Your task to perform on an android device: Clear the cart on amazon.com. Search for sony triple a on amazon.com, select the first entry, and add it to the cart. Image 0: 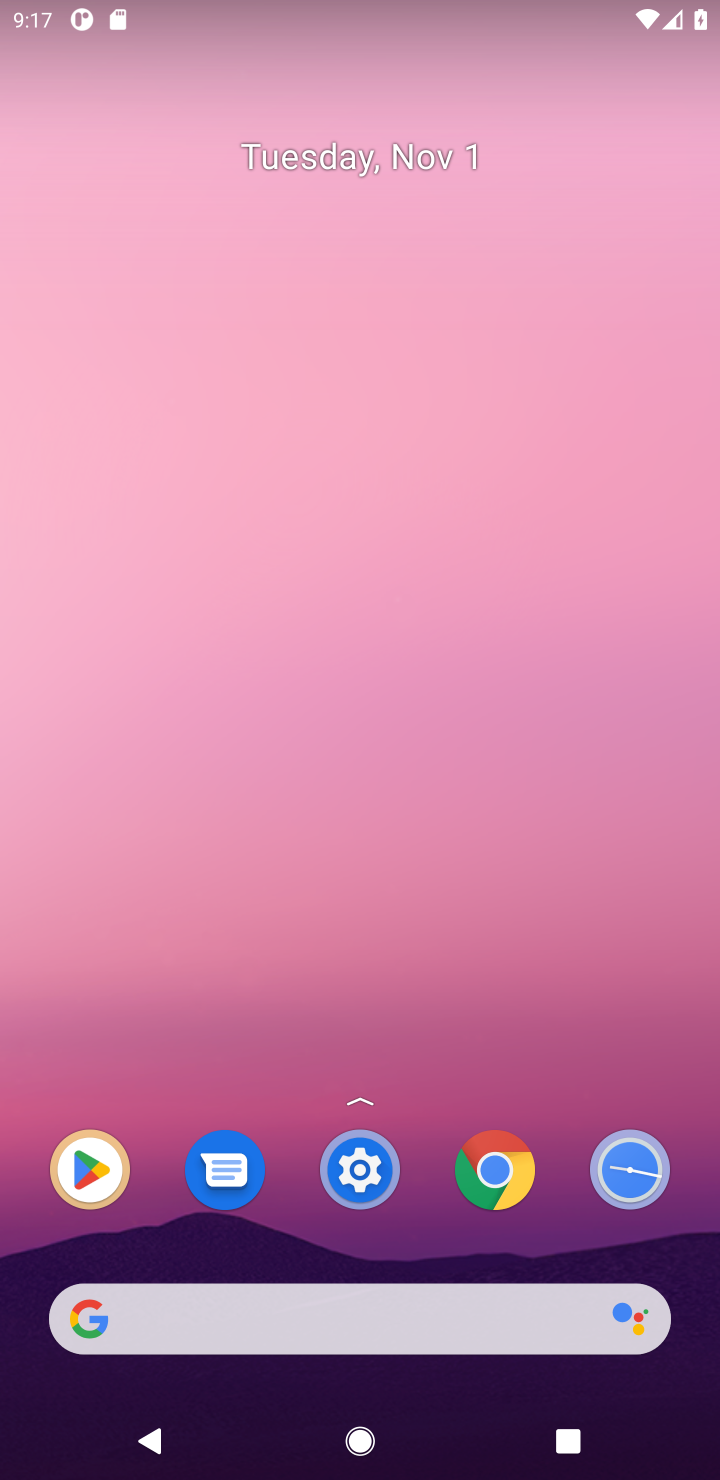
Step 0: click (94, 1320)
Your task to perform on an android device: Clear the cart on amazon.com. Search for sony triple a on amazon.com, select the first entry, and add it to the cart. Image 1: 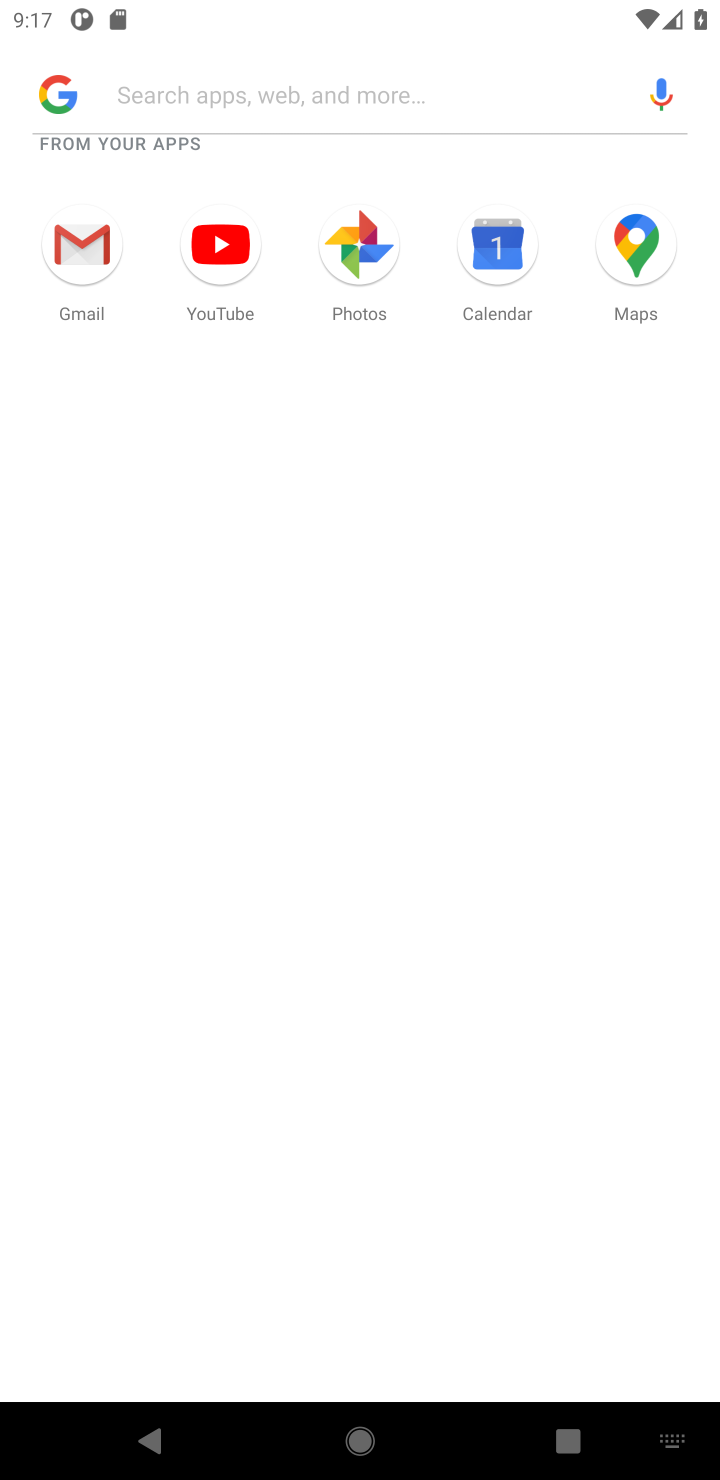
Step 1: type "amazon.com"
Your task to perform on an android device: Clear the cart on amazon.com. Search for sony triple a on amazon.com, select the first entry, and add it to the cart. Image 2: 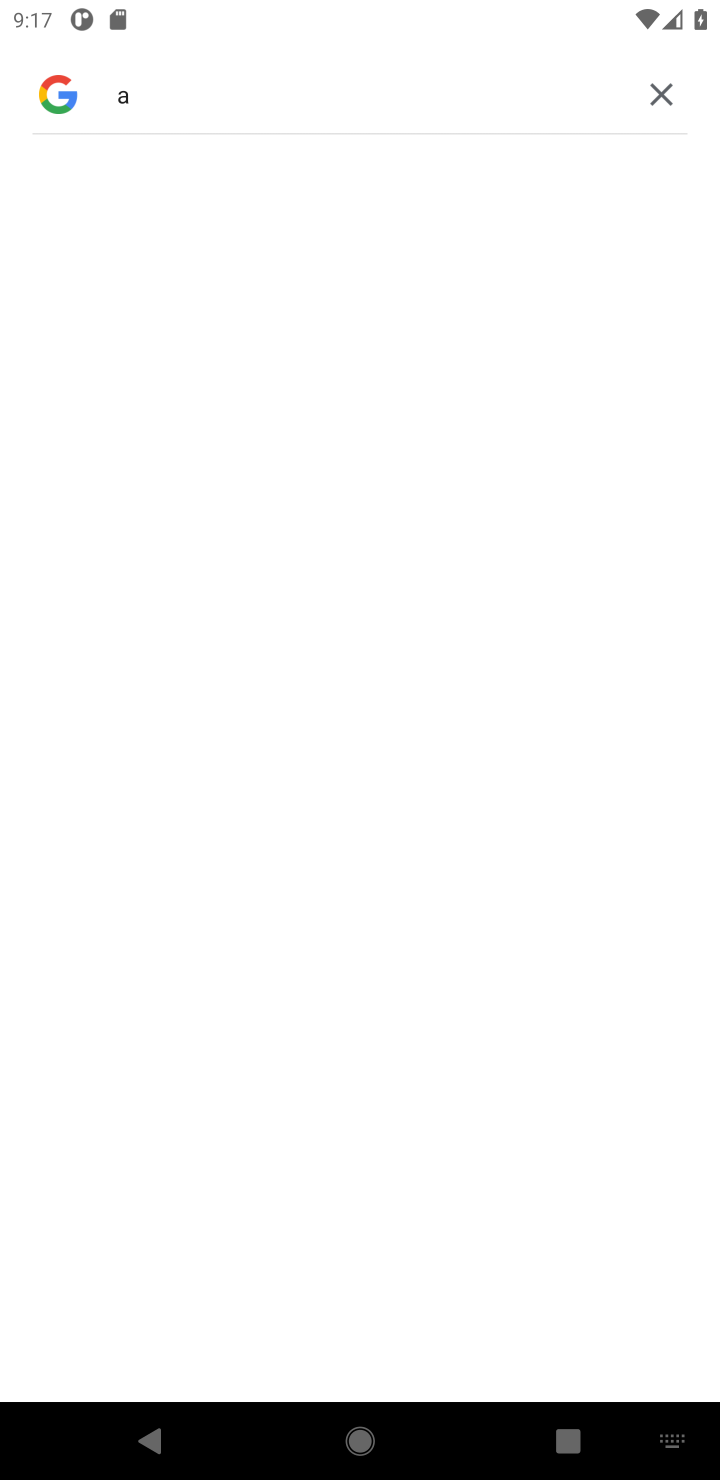
Step 2: type "mazon.com"
Your task to perform on an android device: Clear the cart on amazon.com. Search for sony triple a on amazon.com, select the first entry, and add it to the cart. Image 3: 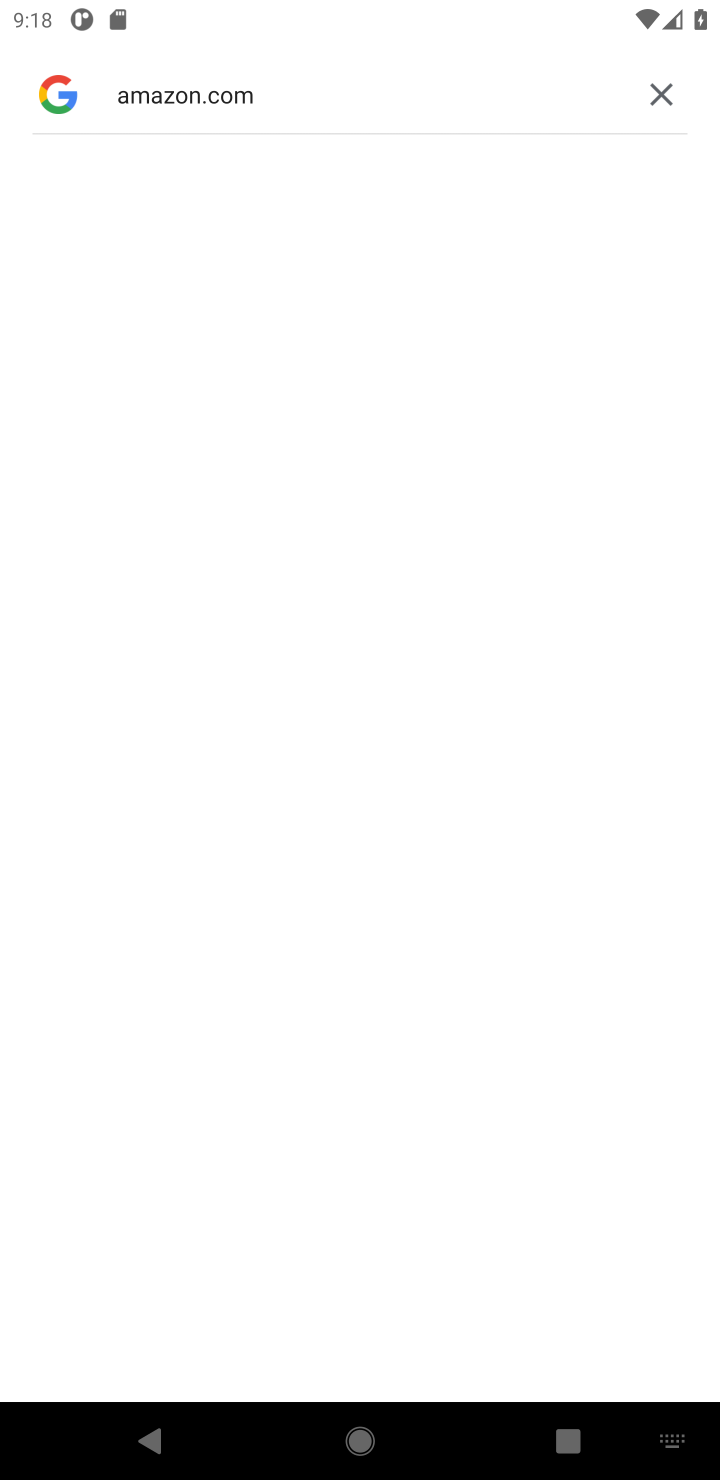
Step 3: task complete